Your task to perform on an android device: Show me productivity apps on the Play Store Image 0: 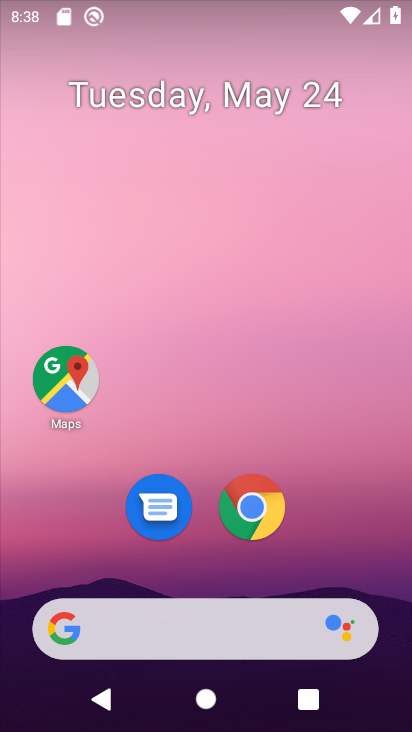
Step 0: drag from (226, 309) to (239, 134)
Your task to perform on an android device: Show me productivity apps on the Play Store Image 1: 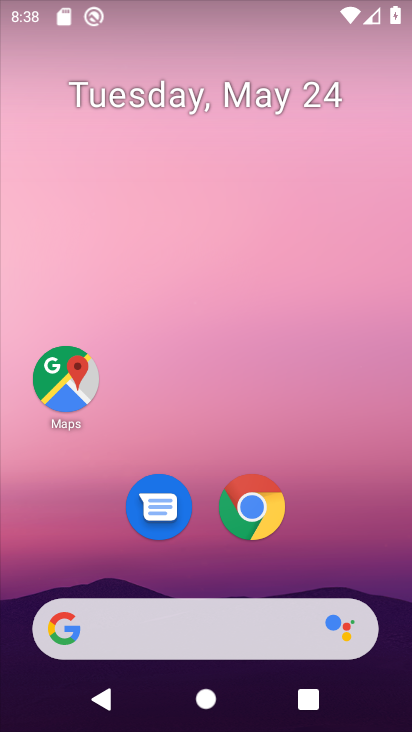
Step 1: drag from (216, 567) to (13, 356)
Your task to perform on an android device: Show me productivity apps on the Play Store Image 2: 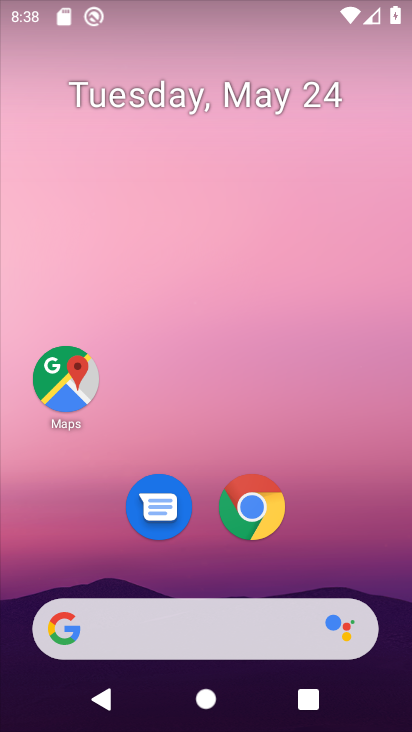
Step 2: drag from (197, 563) to (184, 35)
Your task to perform on an android device: Show me productivity apps on the Play Store Image 3: 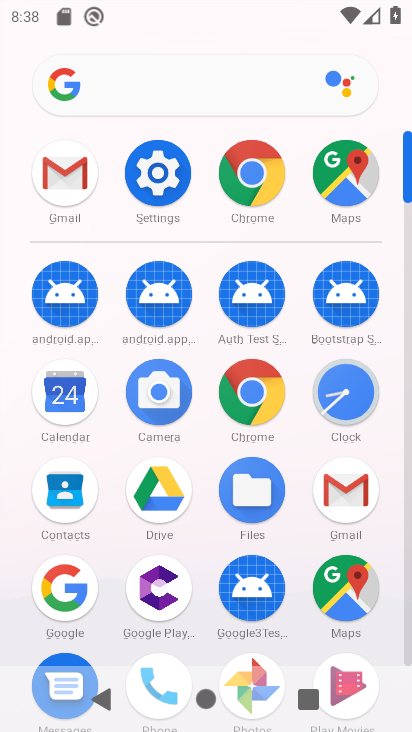
Step 3: drag from (206, 621) to (196, 272)
Your task to perform on an android device: Show me productivity apps on the Play Store Image 4: 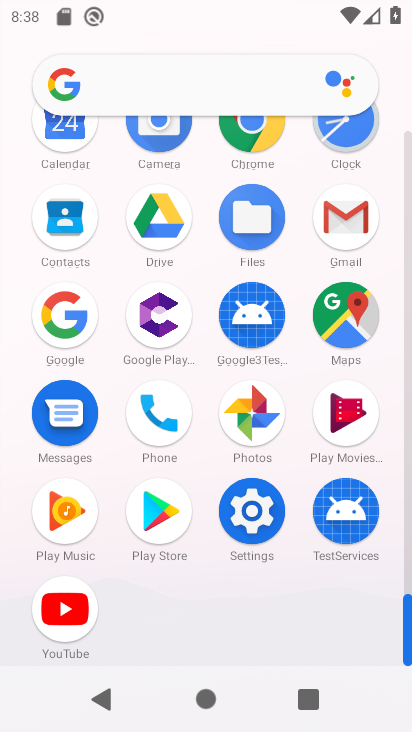
Step 4: click (160, 519)
Your task to perform on an android device: Show me productivity apps on the Play Store Image 5: 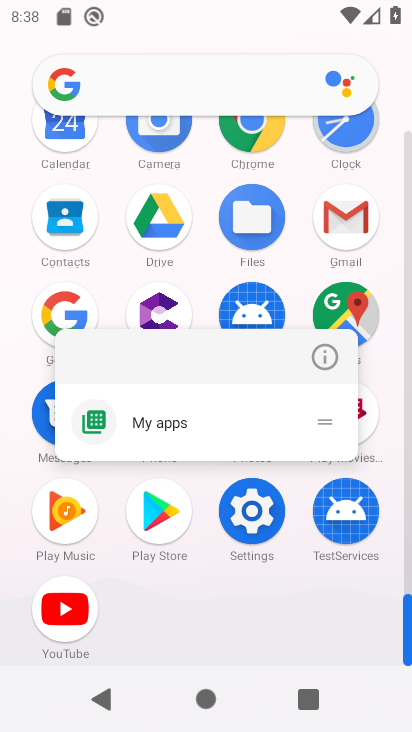
Step 5: click (321, 348)
Your task to perform on an android device: Show me productivity apps on the Play Store Image 6: 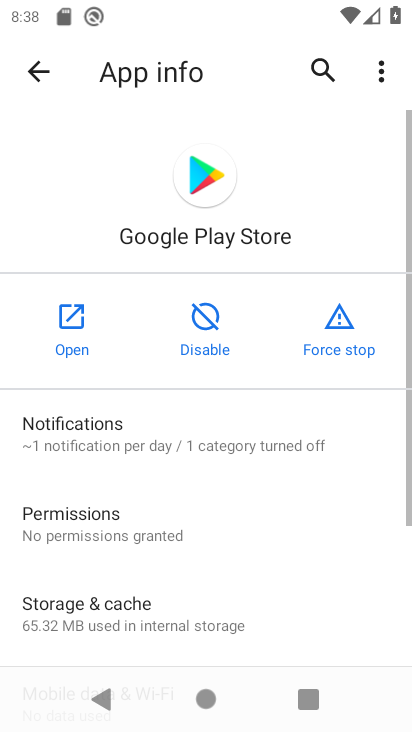
Step 6: click (61, 308)
Your task to perform on an android device: Show me productivity apps on the Play Store Image 7: 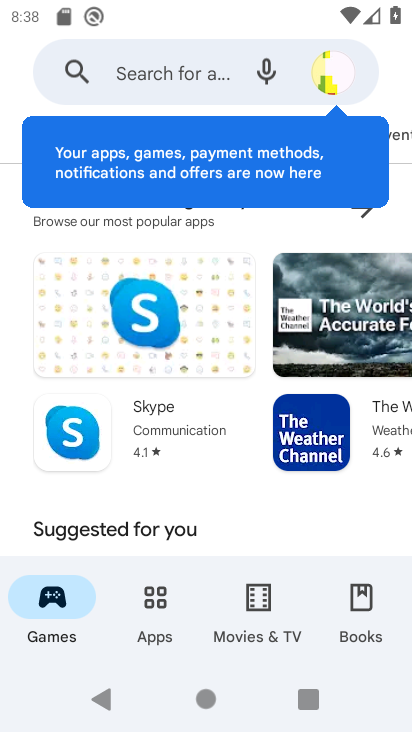
Step 7: drag from (261, 228) to (269, 617)
Your task to perform on an android device: Show me productivity apps on the Play Store Image 8: 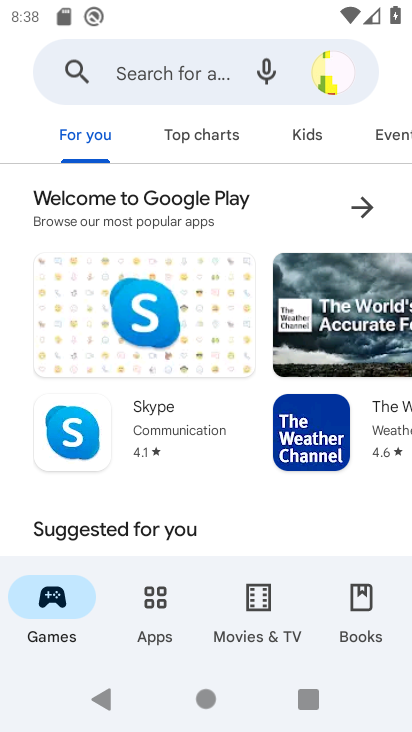
Step 8: drag from (252, 512) to (269, 153)
Your task to perform on an android device: Show me productivity apps on the Play Store Image 9: 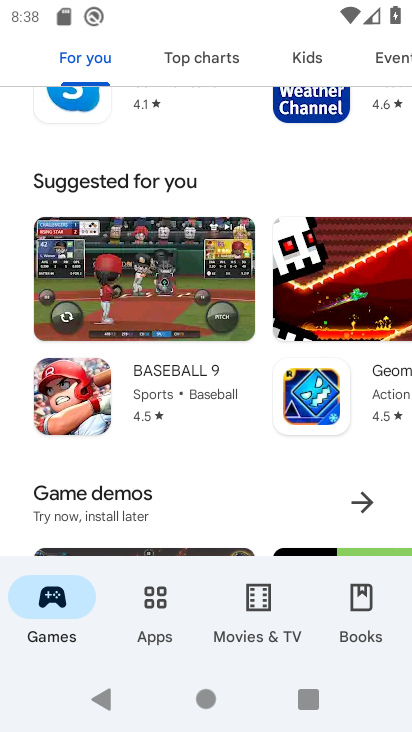
Step 9: drag from (253, 476) to (270, 185)
Your task to perform on an android device: Show me productivity apps on the Play Store Image 10: 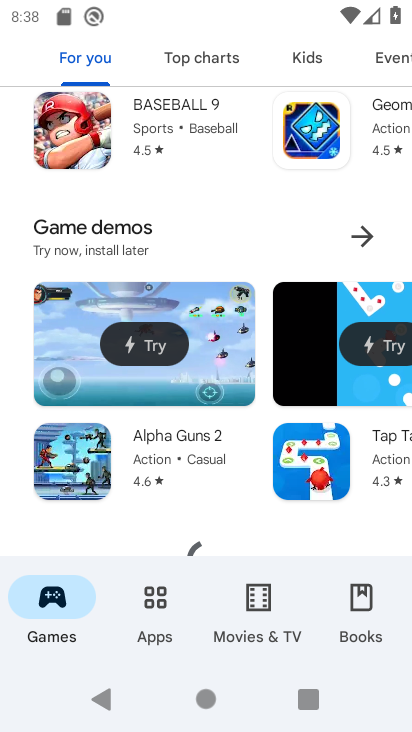
Step 10: drag from (255, 519) to (266, 232)
Your task to perform on an android device: Show me productivity apps on the Play Store Image 11: 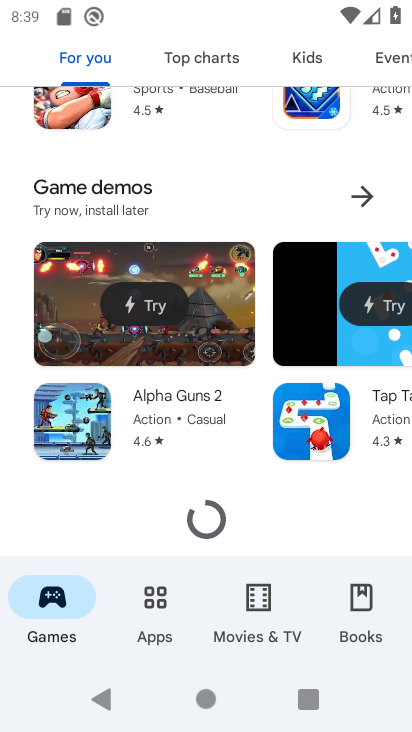
Step 11: drag from (244, 512) to (255, 175)
Your task to perform on an android device: Show me productivity apps on the Play Store Image 12: 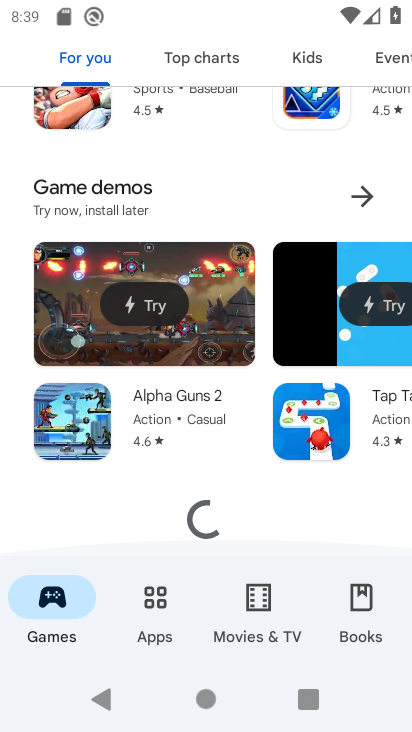
Step 12: drag from (260, 149) to (261, 665)
Your task to perform on an android device: Show me productivity apps on the Play Store Image 13: 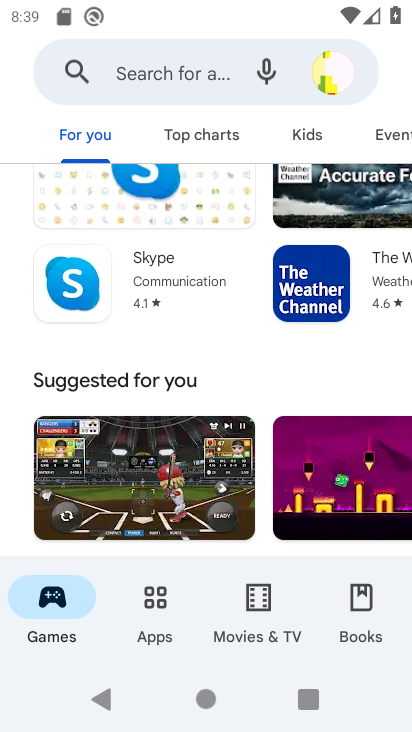
Step 13: drag from (268, 268) to (282, 653)
Your task to perform on an android device: Show me productivity apps on the Play Store Image 14: 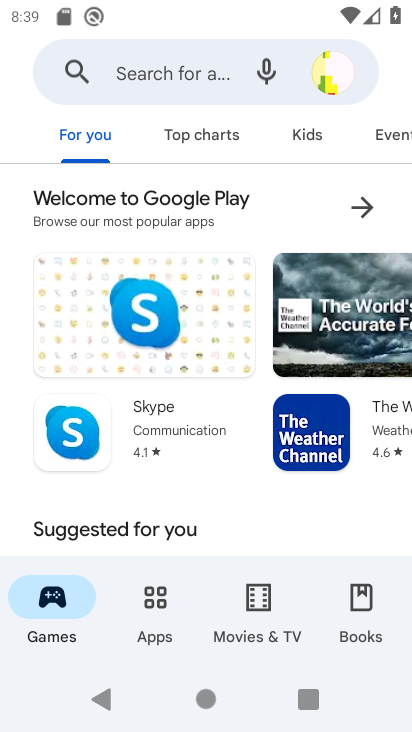
Step 14: click (156, 609)
Your task to perform on an android device: Show me productivity apps on the Play Store Image 15: 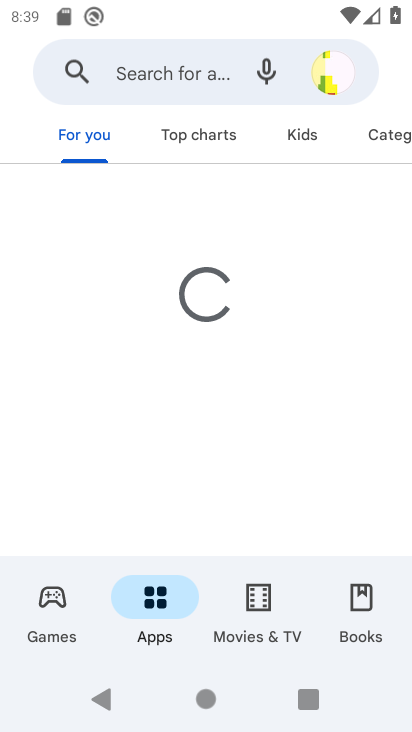
Step 15: task complete